Your task to perform on an android device: Go to Wikipedia Image 0: 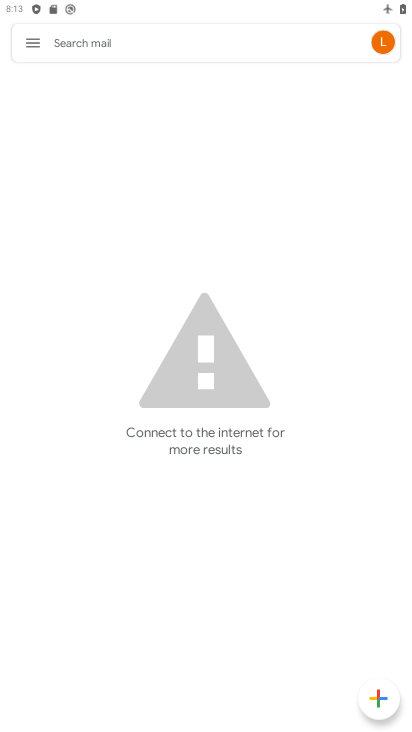
Step 0: press home button
Your task to perform on an android device: Go to Wikipedia Image 1: 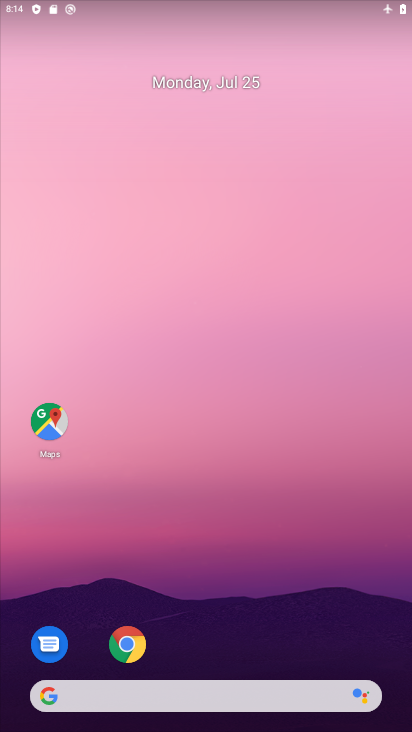
Step 1: drag from (270, 648) to (248, 212)
Your task to perform on an android device: Go to Wikipedia Image 2: 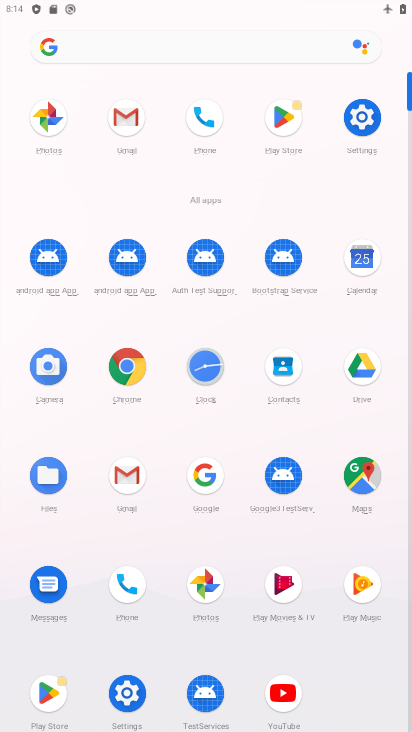
Step 2: click (125, 360)
Your task to perform on an android device: Go to Wikipedia Image 3: 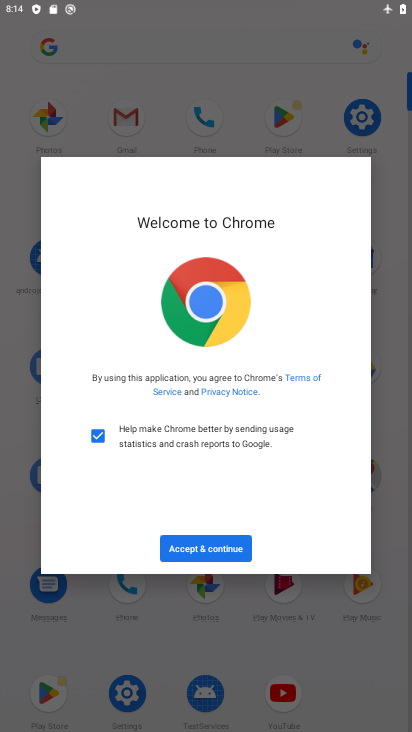
Step 3: click (211, 549)
Your task to perform on an android device: Go to Wikipedia Image 4: 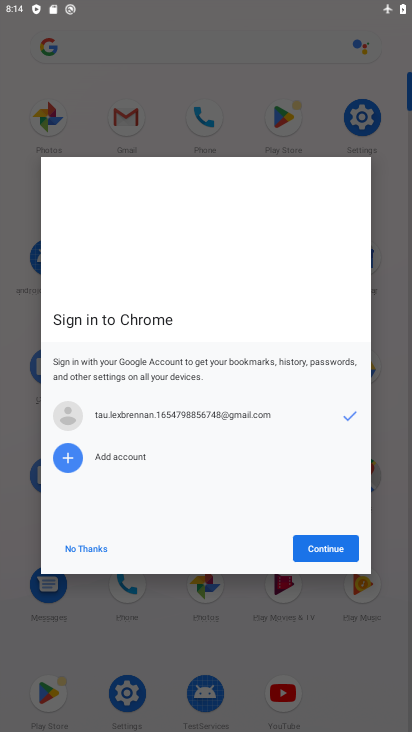
Step 4: click (317, 539)
Your task to perform on an android device: Go to Wikipedia Image 5: 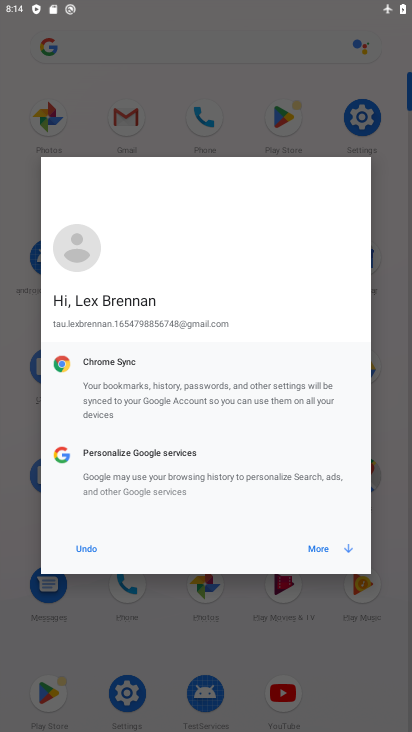
Step 5: click (313, 549)
Your task to perform on an android device: Go to Wikipedia Image 6: 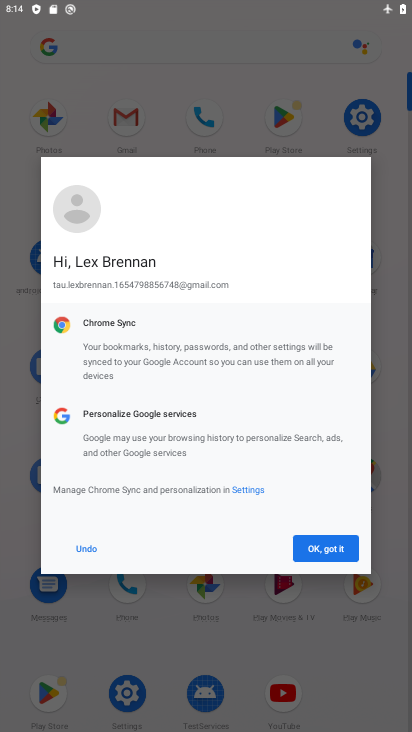
Step 6: click (313, 549)
Your task to perform on an android device: Go to Wikipedia Image 7: 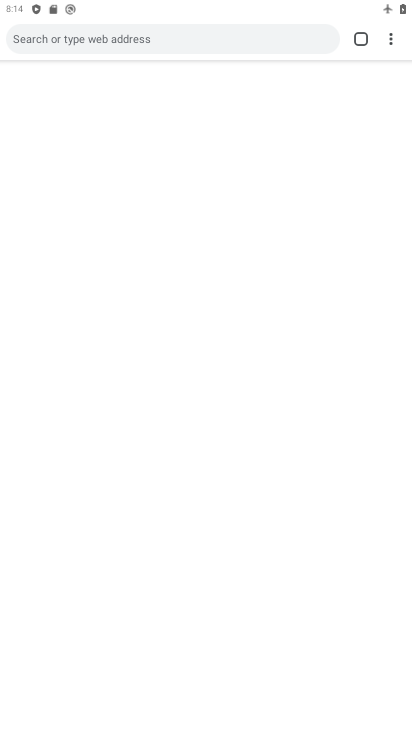
Step 7: click (313, 549)
Your task to perform on an android device: Go to Wikipedia Image 8: 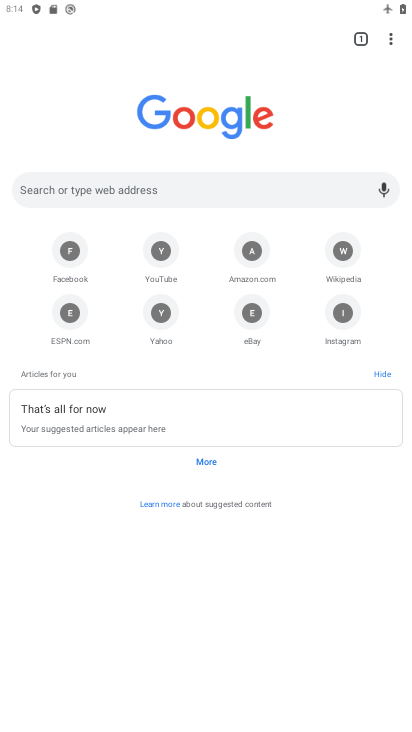
Step 8: click (349, 249)
Your task to perform on an android device: Go to Wikipedia Image 9: 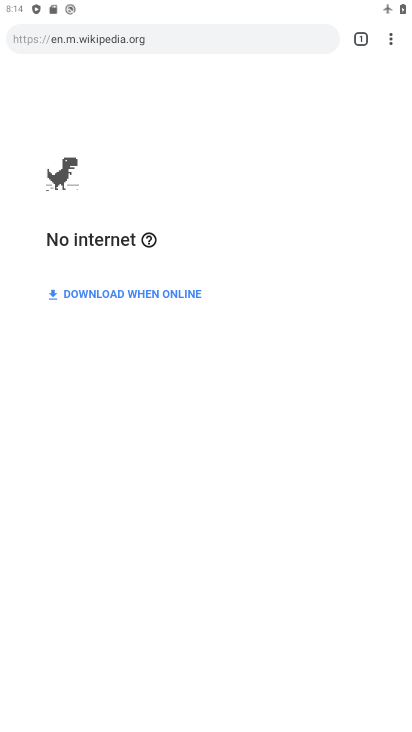
Step 9: task complete